Your task to perform on an android device: open app "LinkedIn" (install if not already installed) Image 0: 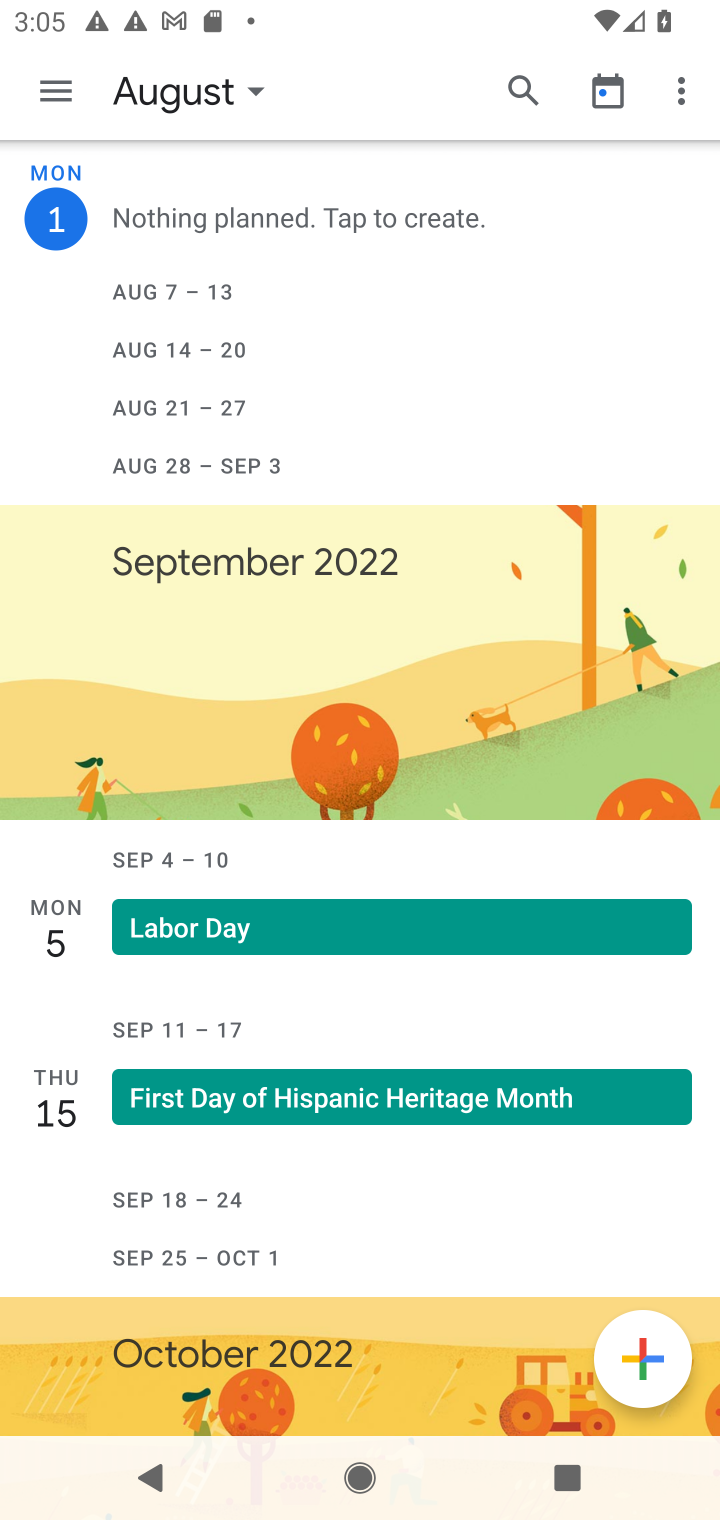
Step 0: press home button
Your task to perform on an android device: open app "LinkedIn" (install if not already installed) Image 1: 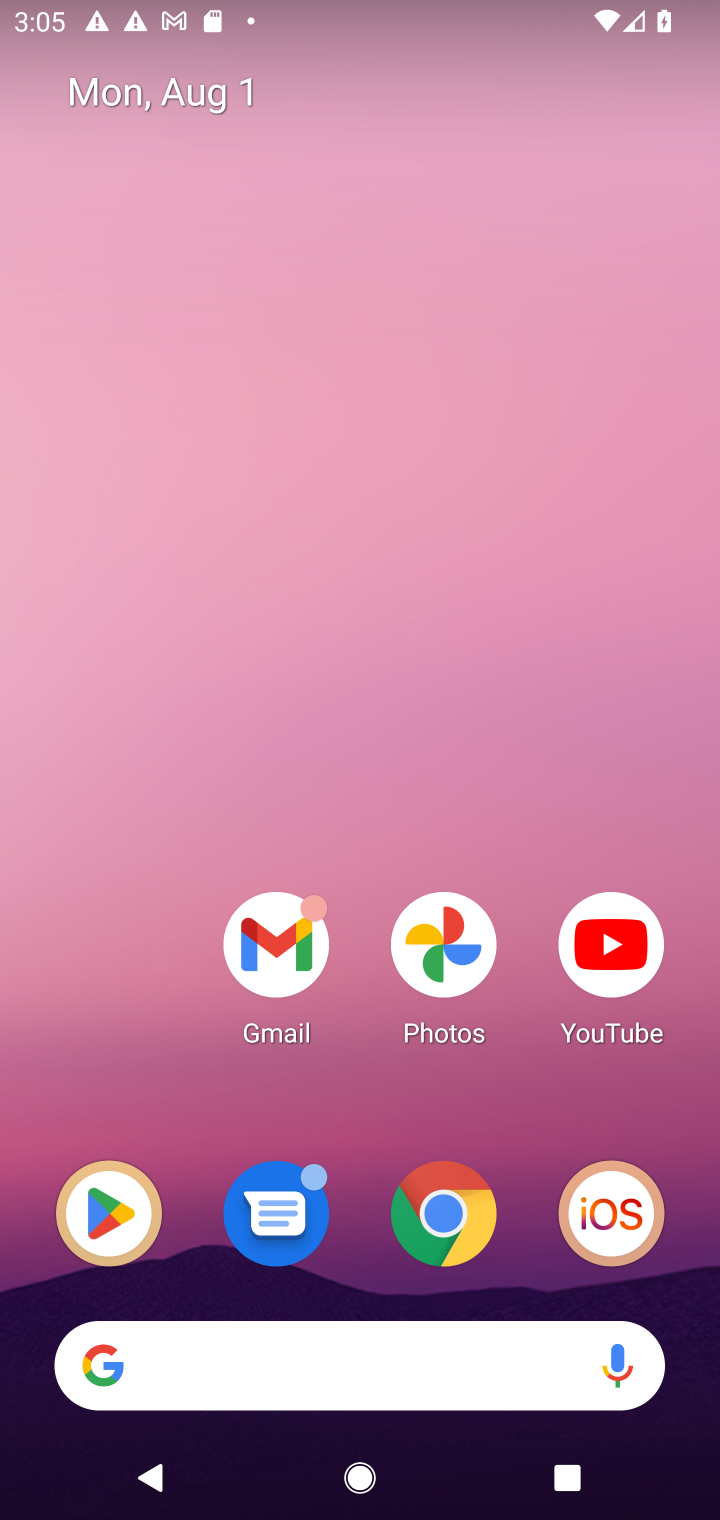
Step 1: click (88, 1204)
Your task to perform on an android device: open app "LinkedIn" (install if not already installed) Image 2: 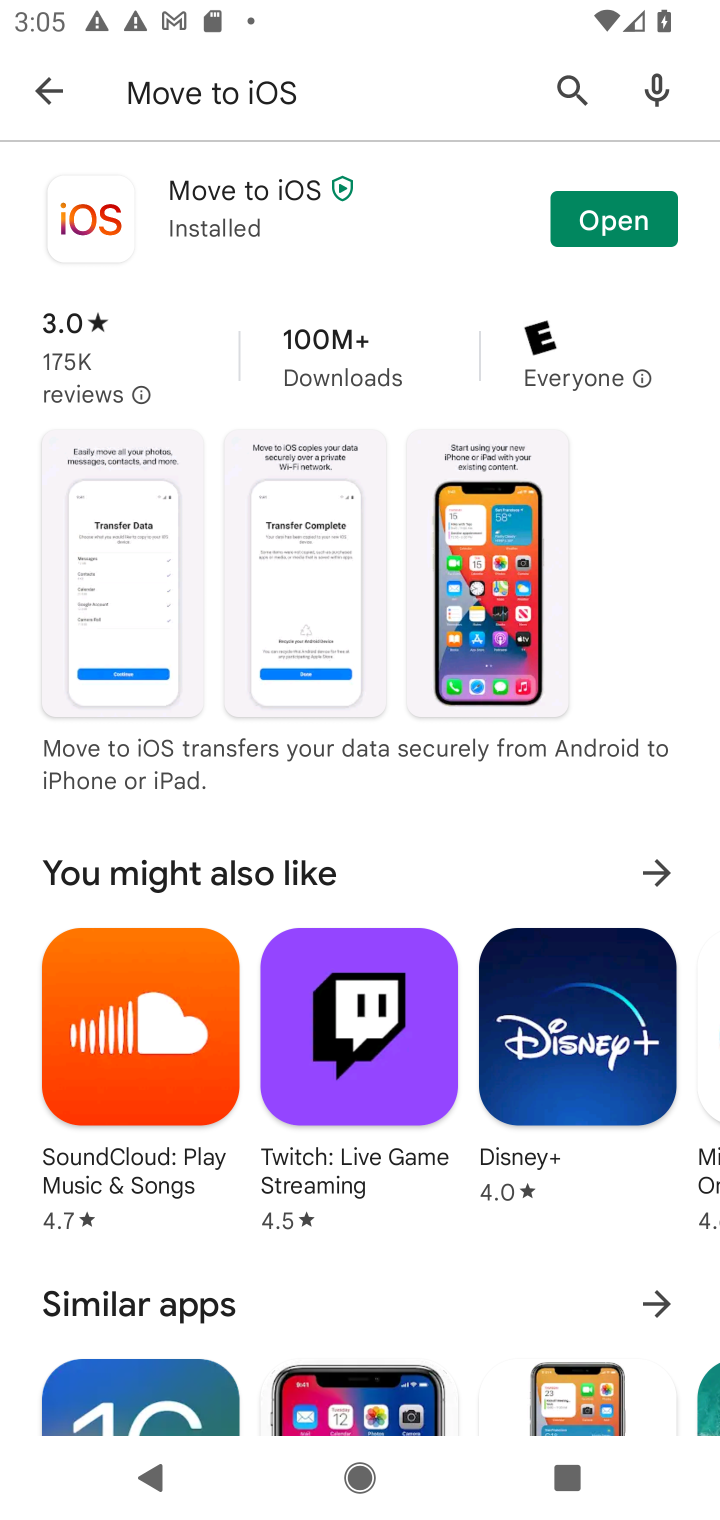
Step 2: click (295, 110)
Your task to perform on an android device: open app "LinkedIn" (install if not already installed) Image 3: 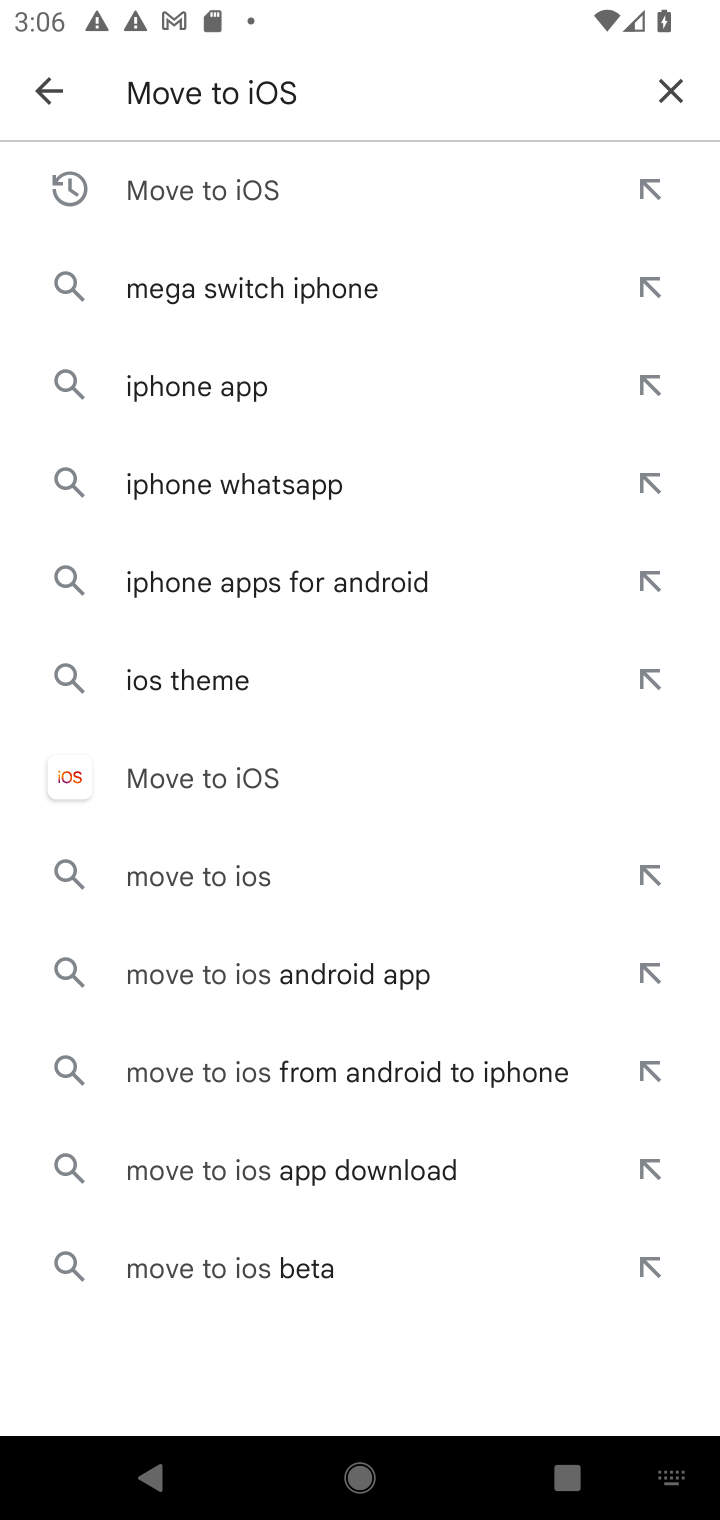
Step 3: click (660, 96)
Your task to perform on an android device: open app "LinkedIn" (install if not already installed) Image 4: 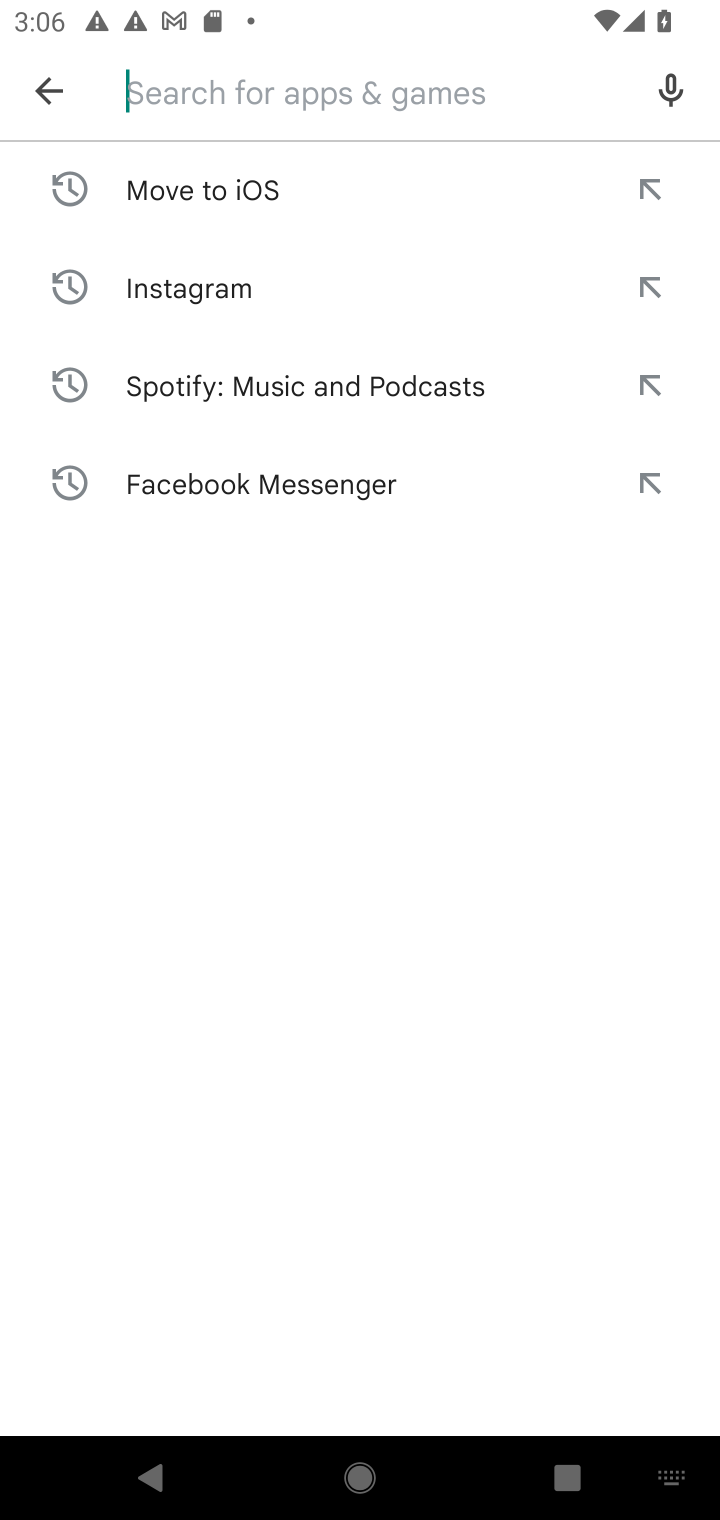
Step 4: type "Linkedln"
Your task to perform on an android device: open app "LinkedIn" (install if not already installed) Image 5: 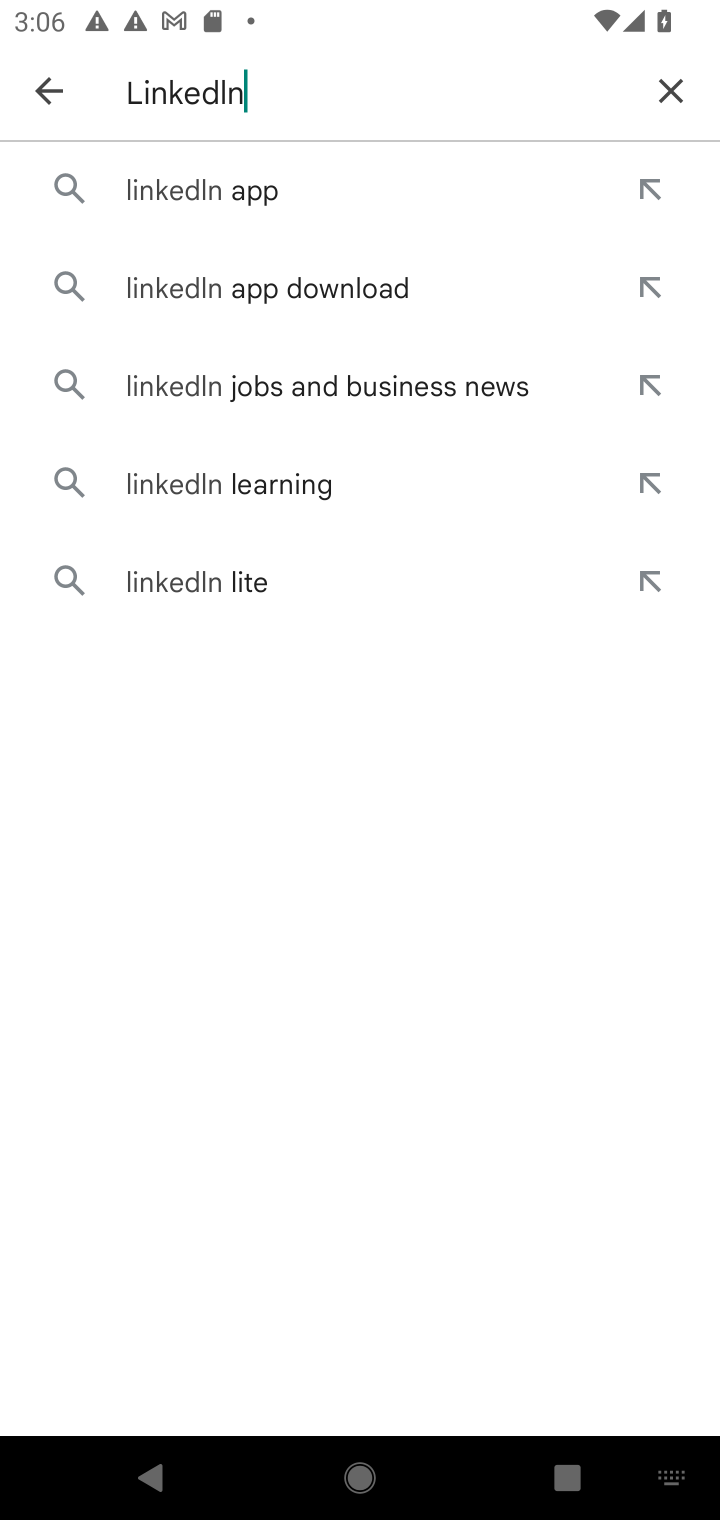
Step 5: press enter
Your task to perform on an android device: open app "LinkedIn" (install if not already installed) Image 6: 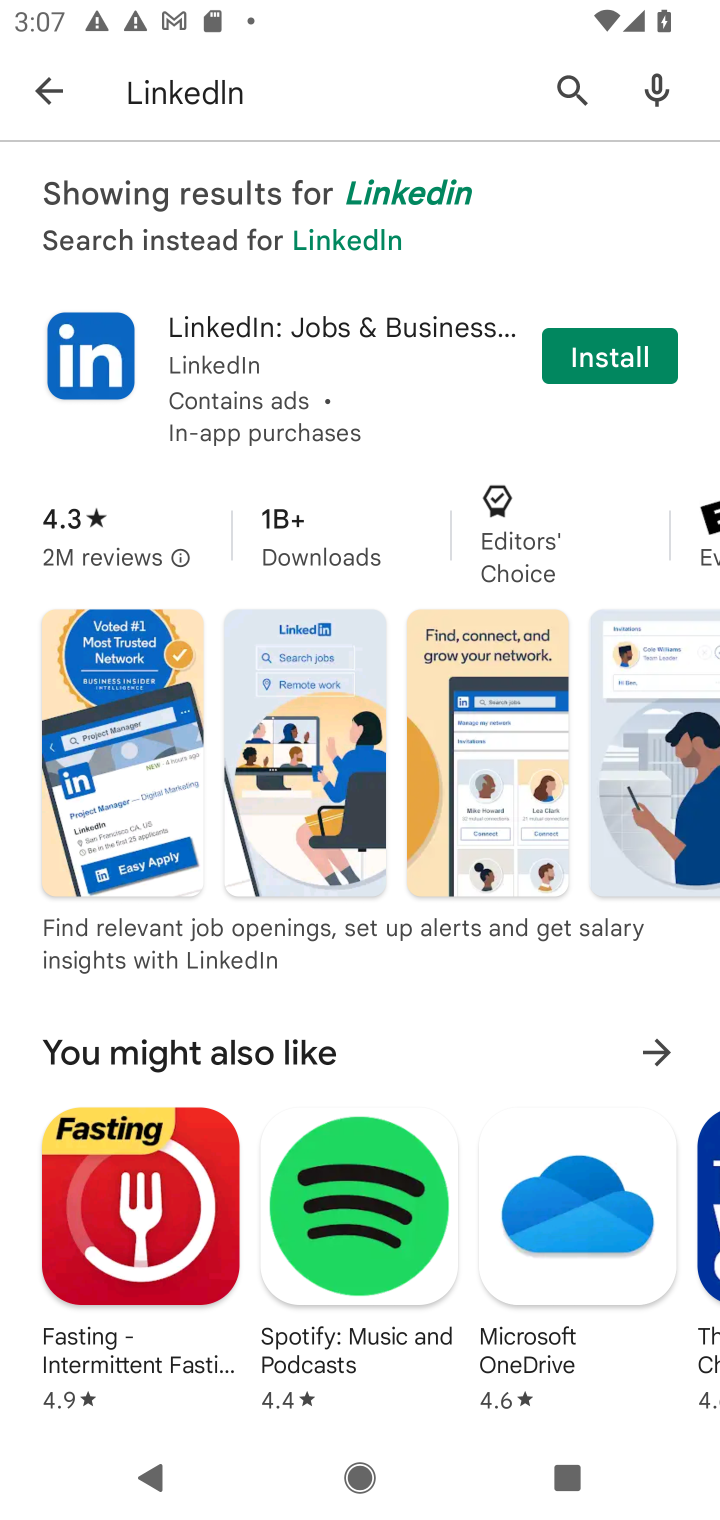
Step 6: click (590, 359)
Your task to perform on an android device: open app "LinkedIn" (install if not already installed) Image 7: 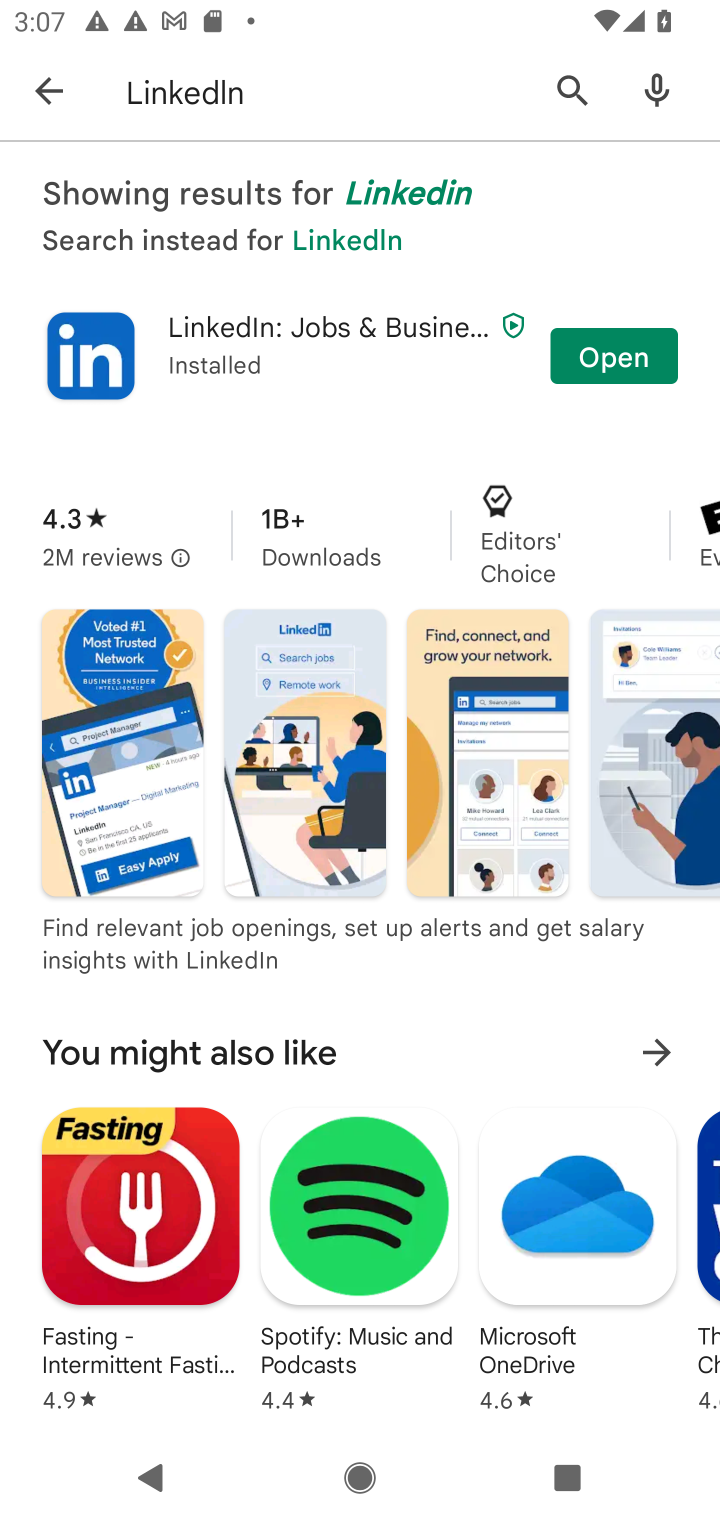
Step 7: click (628, 351)
Your task to perform on an android device: open app "LinkedIn" (install if not already installed) Image 8: 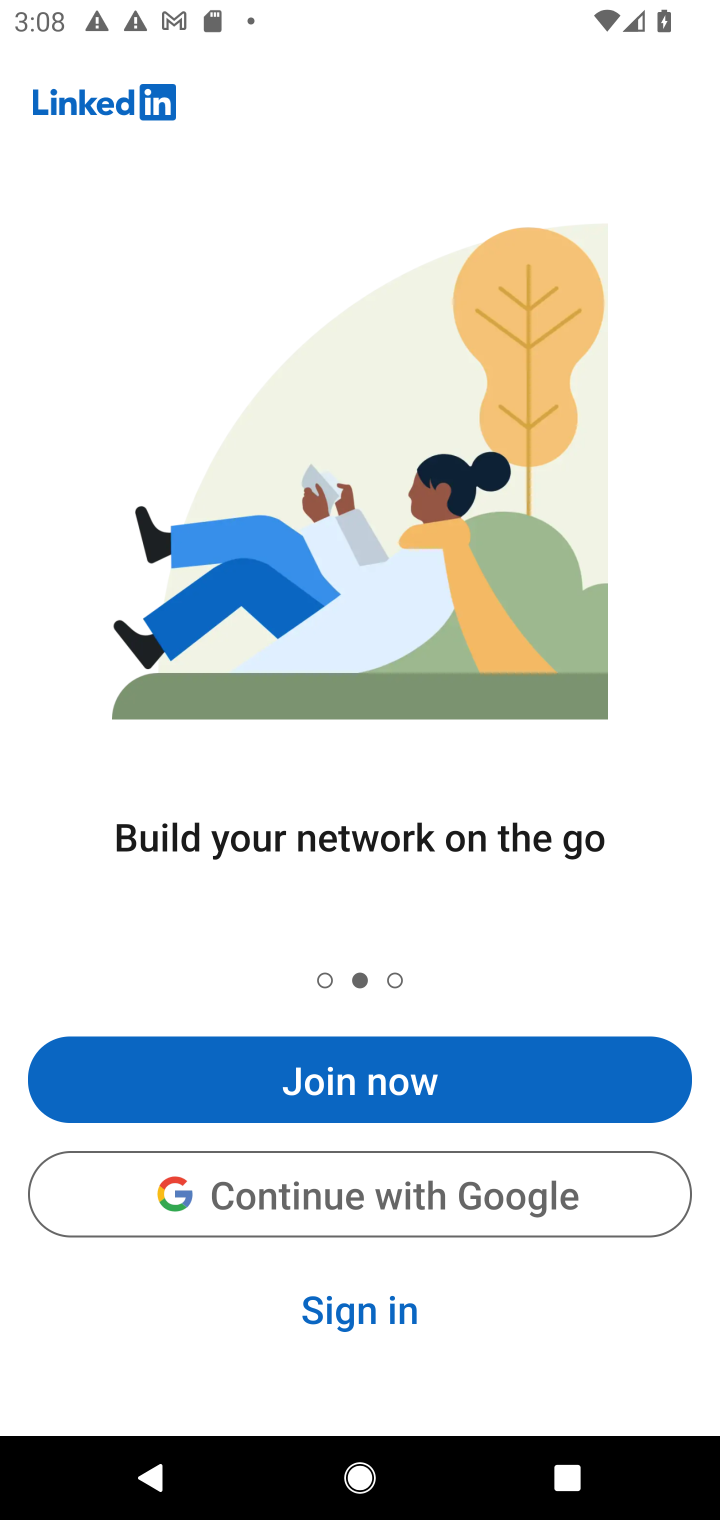
Step 8: task complete